Your task to perform on an android device: make emails show in primary in the gmail app Image 0: 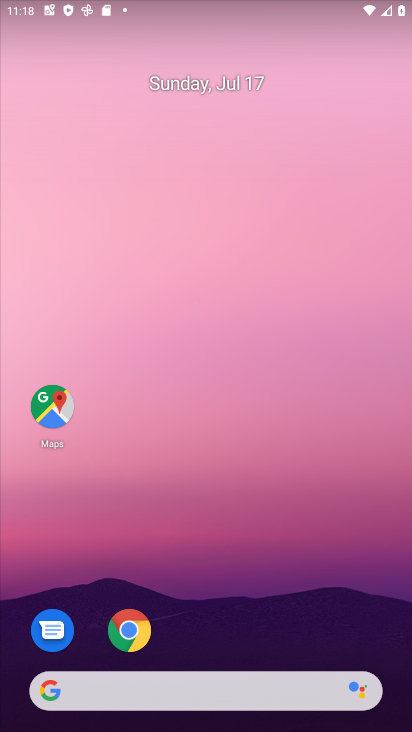
Step 0: drag from (228, 650) to (182, 195)
Your task to perform on an android device: make emails show in primary in the gmail app Image 1: 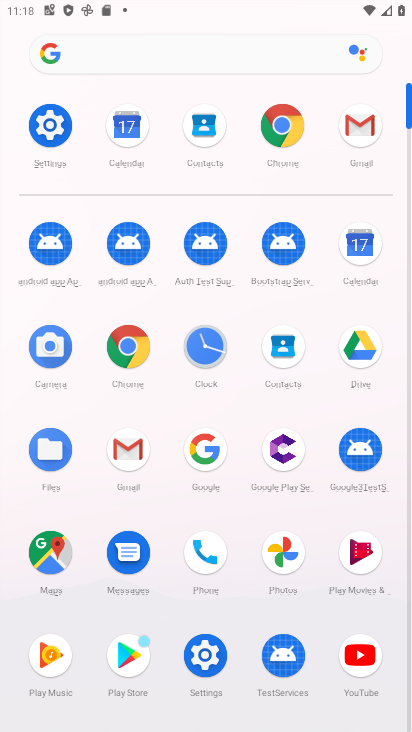
Step 1: click (362, 140)
Your task to perform on an android device: make emails show in primary in the gmail app Image 2: 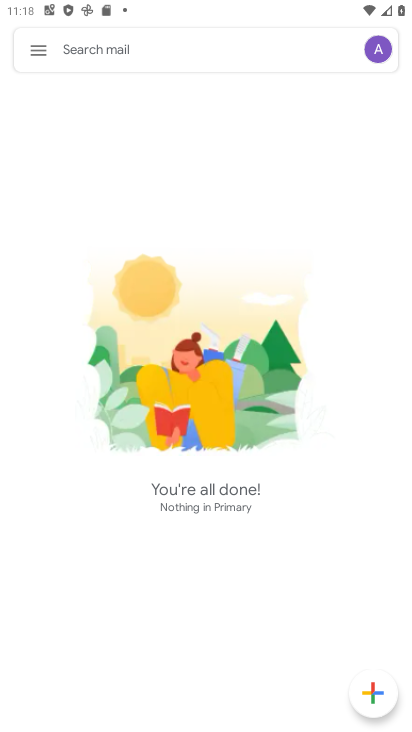
Step 2: click (42, 63)
Your task to perform on an android device: make emails show in primary in the gmail app Image 3: 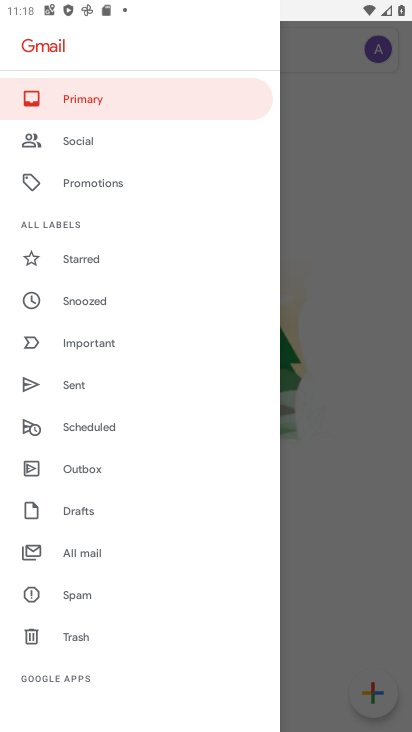
Step 3: task complete